Your task to perform on an android device: Open CNN.com Image 0: 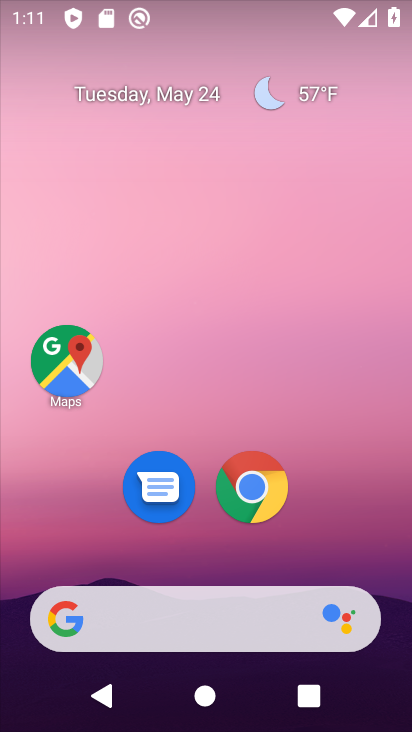
Step 0: click (255, 492)
Your task to perform on an android device: Open CNN.com Image 1: 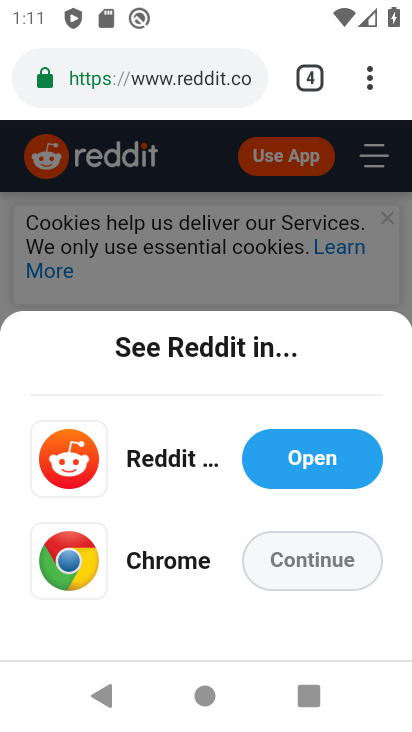
Step 1: click (370, 84)
Your task to perform on an android device: Open CNN.com Image 2: 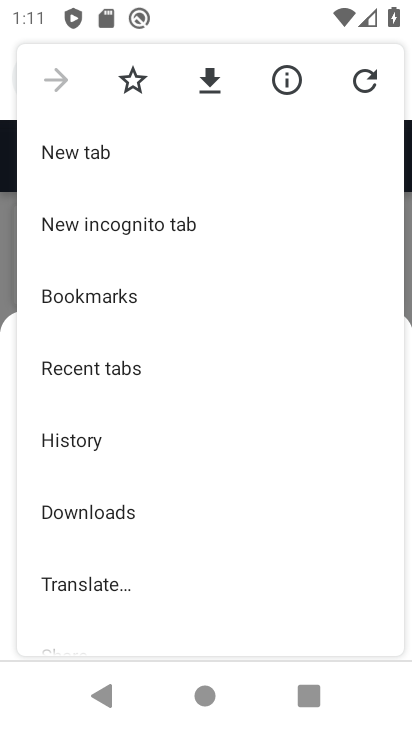
Step 2: click (76, 153)
Your task to perform on an android device: Open CNN.com Image 3: 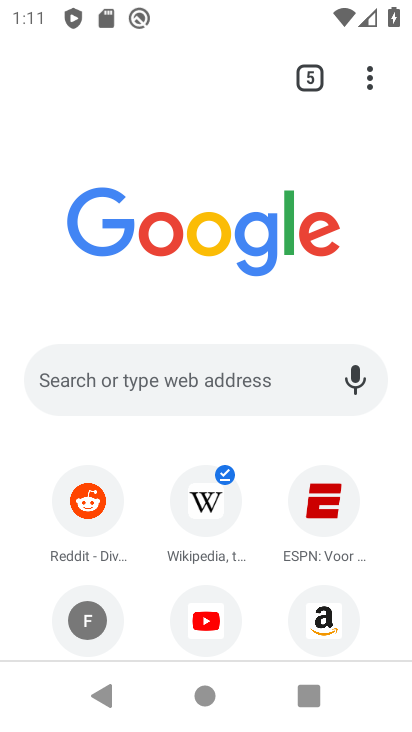
Step 3: click (198, 371)
Your task to perform on an android device: Open CNN.com Image 4: 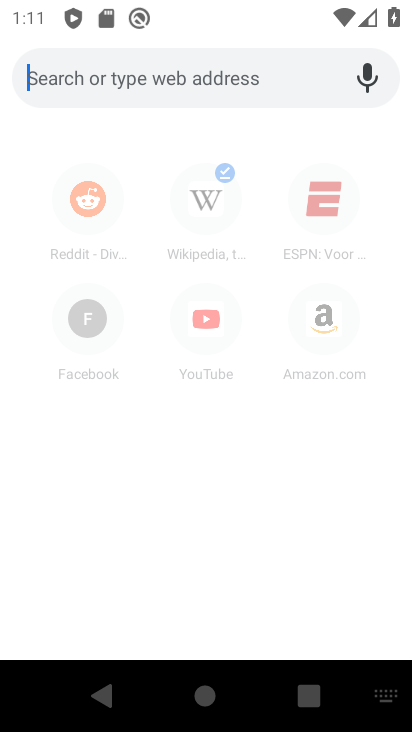
Step 4: type "CNN.com"
Your task to perform on an android device: Open CNN.com Image 5: 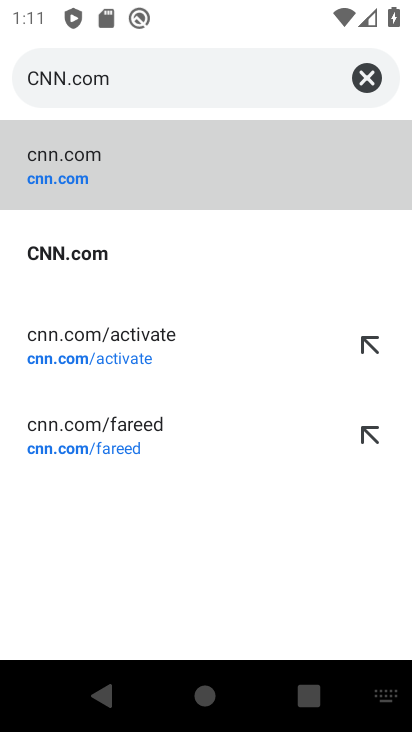
Step 5: click (107, 155)
Your task to perform on an android device: Open CNN.com Image 6: 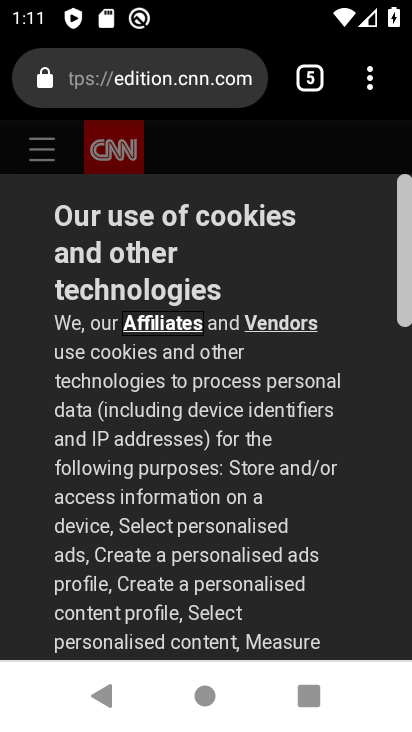
Step 6: task complete